Your task to perform on an android device: toggle notification dots Image 0: 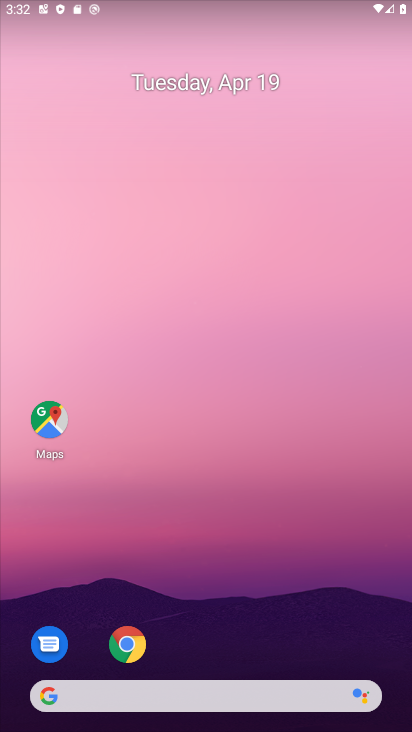
Step 0: drag from (225, 648) to (348, 137)
Your task to perform on an android device: toggle notification dots Image 1: 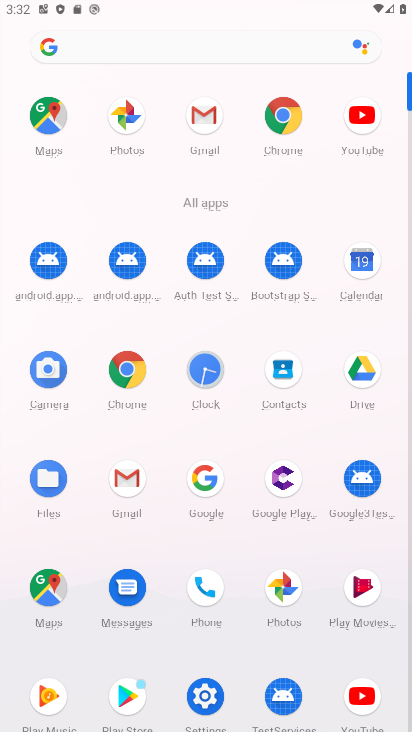
Step 1: drag from (130, 619) to (235, 260)
Your task to perform on an android device: toggle notification dots Image 2: 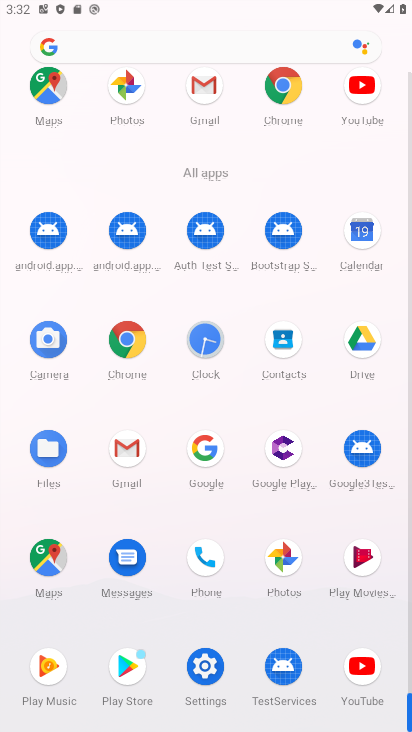
Step 2: click (208, 654)
Your task to perform on an android device: toggle notification dots Image 3: 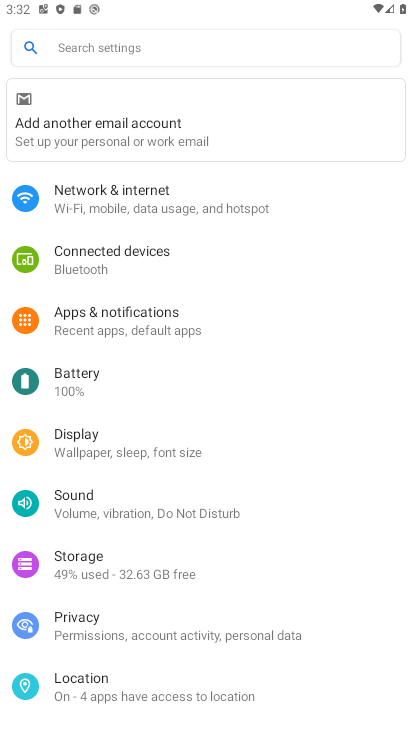
Step 3: click (189, 338)
Your task to perform on an android device: toggle notification dots Image 4: 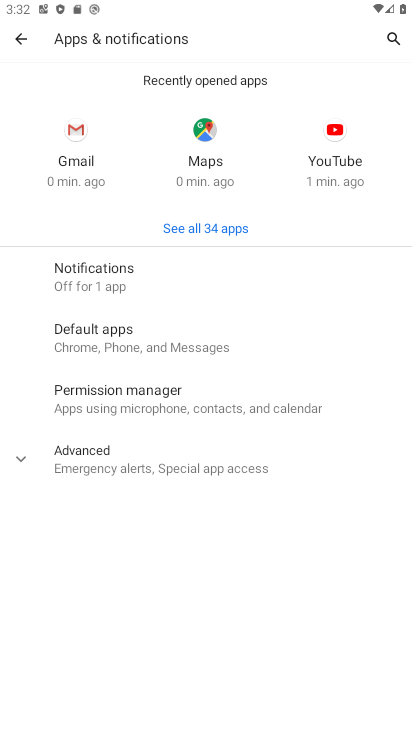
Step 4: click (146, 292)
Your task to perform on an android device: toggle notification dots Image 5: 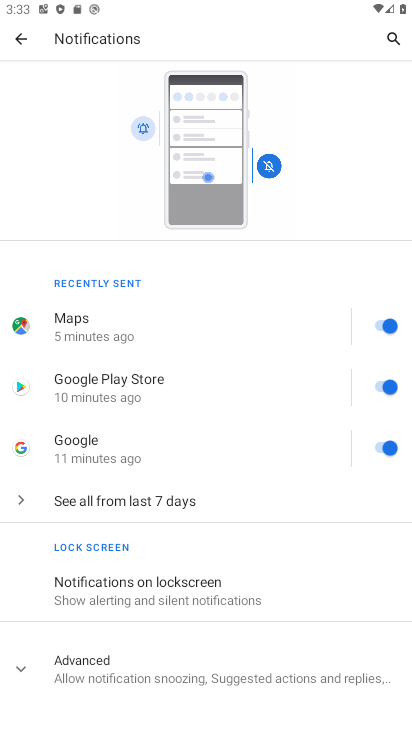
Step 5: drag from (196, 644) to (254, 315)
Your task to perform on an android device: toggle notification dots Image 6: 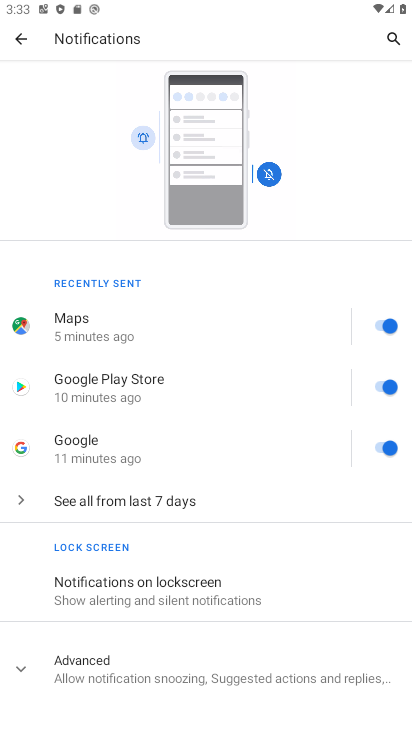
Step 6: drag from (206, 516) to (242, 423)
Your task to perform on an android device: toggle notification dots Image 7: 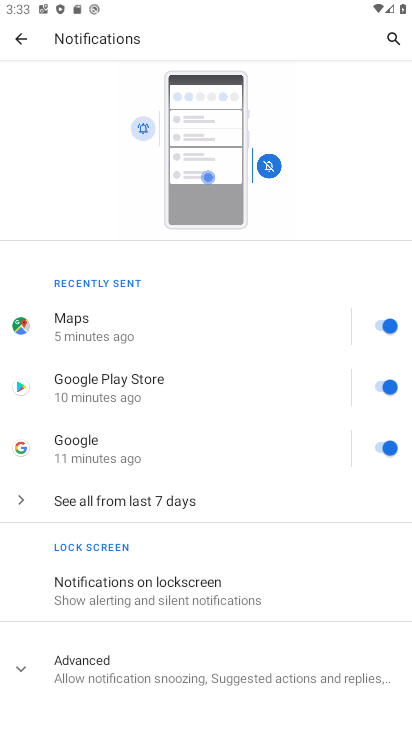
Step 7: click (202, 667)
Your task to perform on an android device: toggle notification dots Image 8: 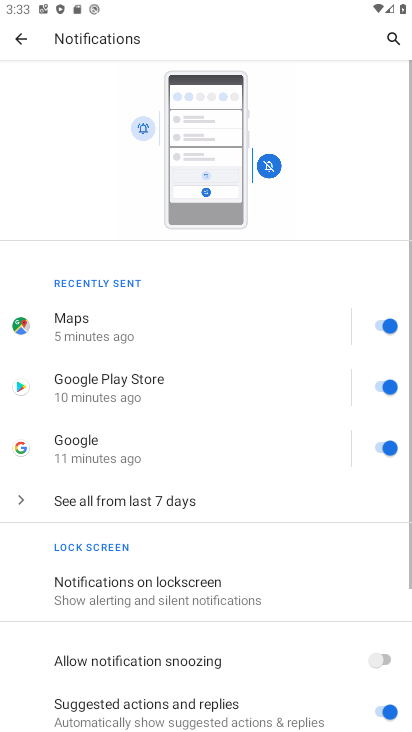
Step 8: drag from (199, 647) to (315, 337)
Your task to perform on an android device: toggle notification dots Image 9: 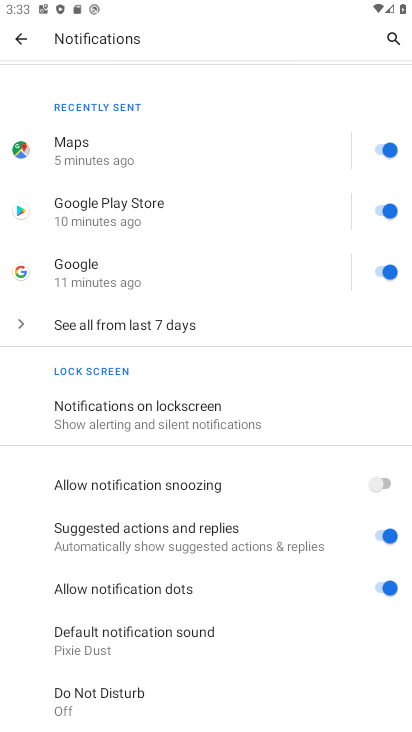
Step 9: click (382, 583)
Your task to perform on an android device: toggle notification dots Image 10: 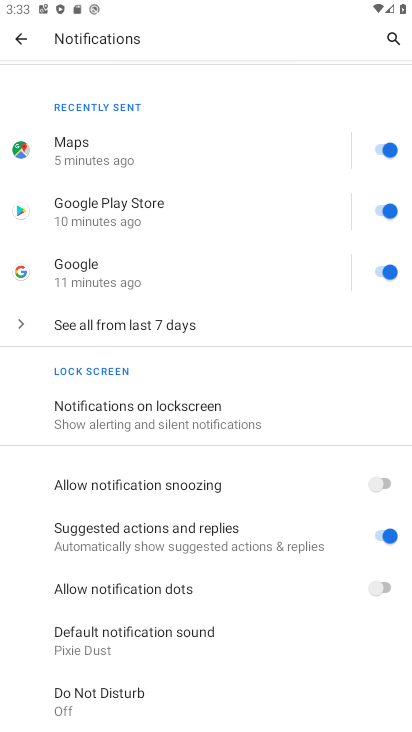
Step 10: task complete